Your task to perform on an android device: Open Reddit.com Image 0: 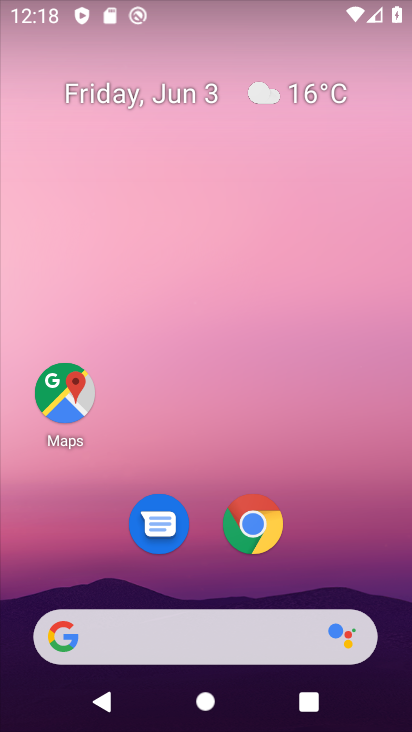
Step 0: click (272, 650)
Your task to perform on an android device: Open Reddit.com Image 1: 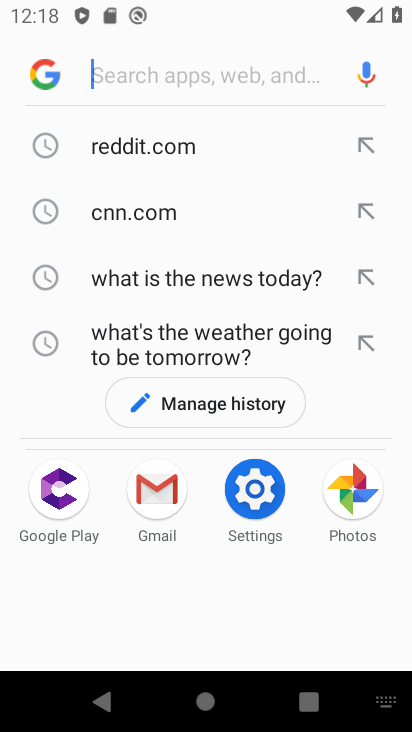
Step 1: click (144, 131)
Your task to perform on an android device: Open Reddit.com Image 2: 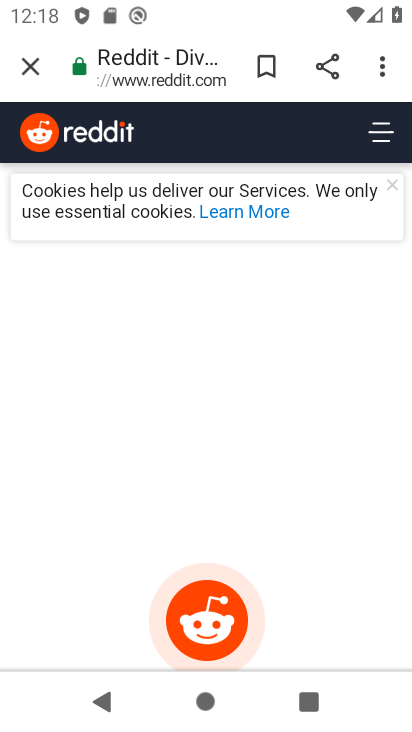
Step 2: task complete